Your task to perform on an android device: move a message to another label in the gmail app Image 0: 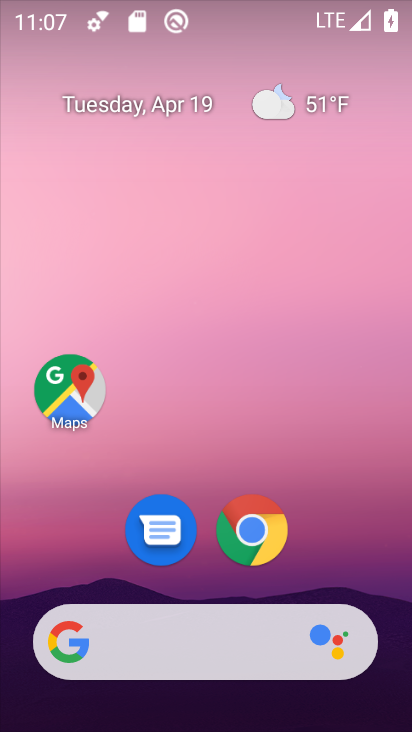
Step 0: drag from (167, 615) to (339, 0)
Your task to perform on an android device: move a message to another label in the gmail app Image 1: 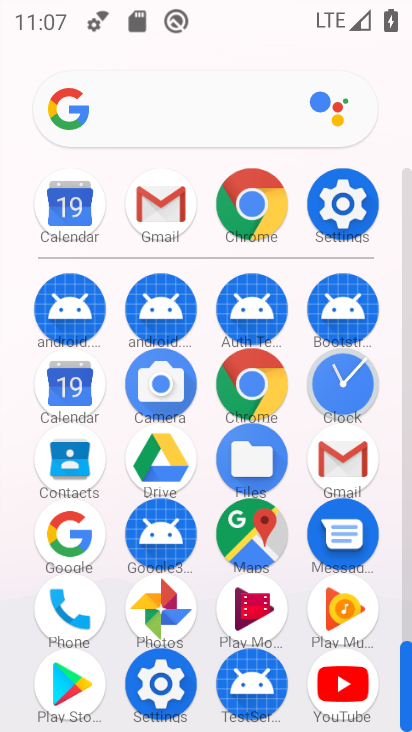
Step 1: click (160, 214)
Your task to perform on an android device: move a message to another label in the gmail app Image 2: 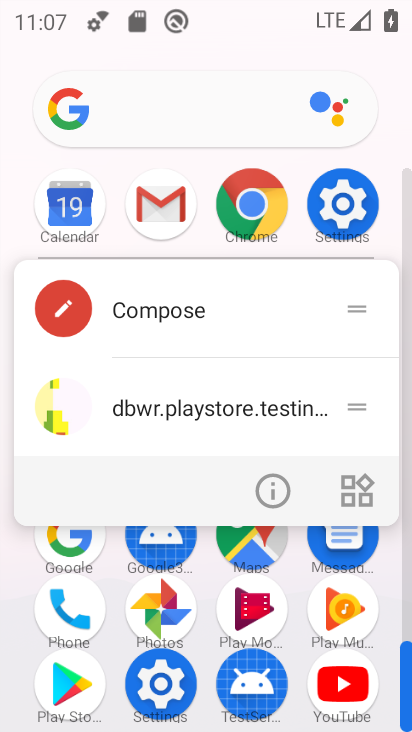
Step 2: click (164, 209)
Your task to perform on an android device: move a message to another label in the gmail app Image 3: 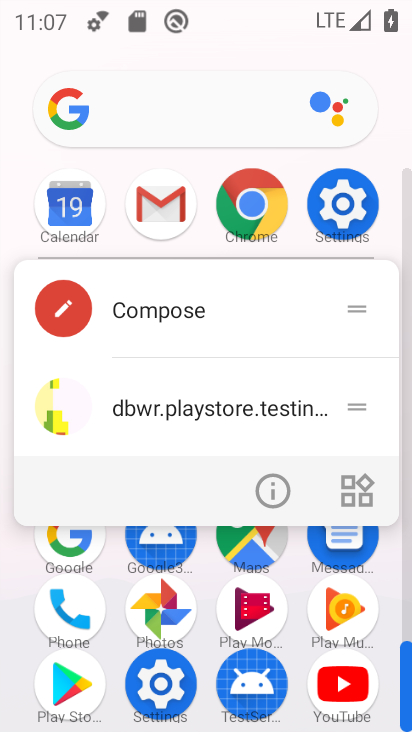
Step 3: click (165, 216)
Your task to perform on an android device: move a message to another label in the gmail app Image 4: 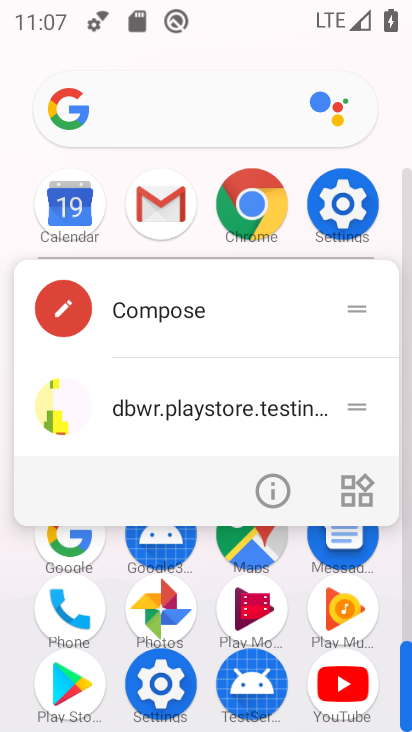
Step 4: click (151, 204)
Your task to perform on an android device: move a message to another label in the gmail app Image 5: 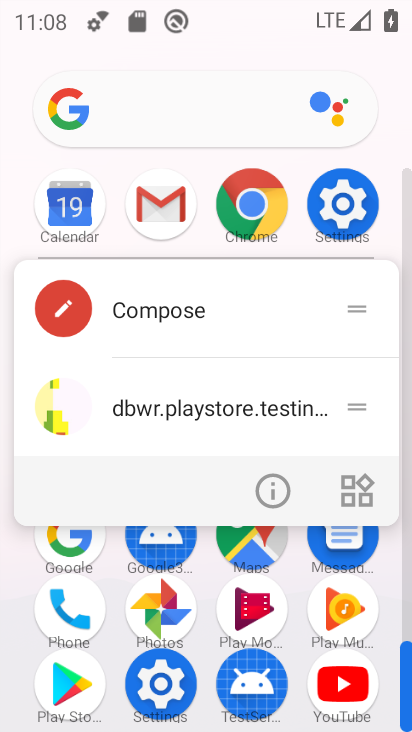
Step 5: click (162, 204)
Your task to perform on an android device: move a message to another label in the gmail app Image 6: 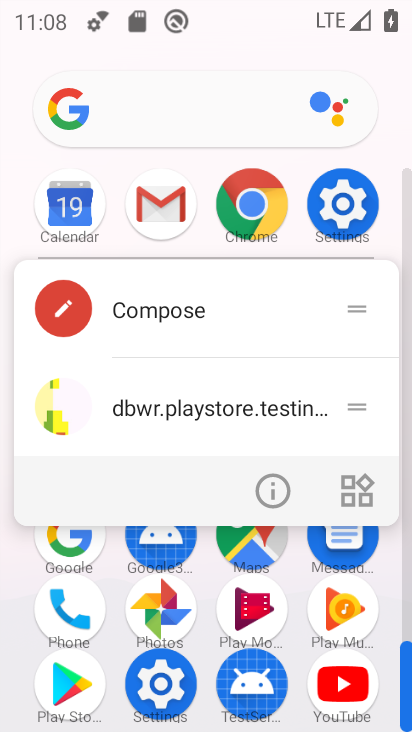
Step 6: click (161, 208)
Your task to perform on an android device: move a message to another label in the gmail app Image 7: 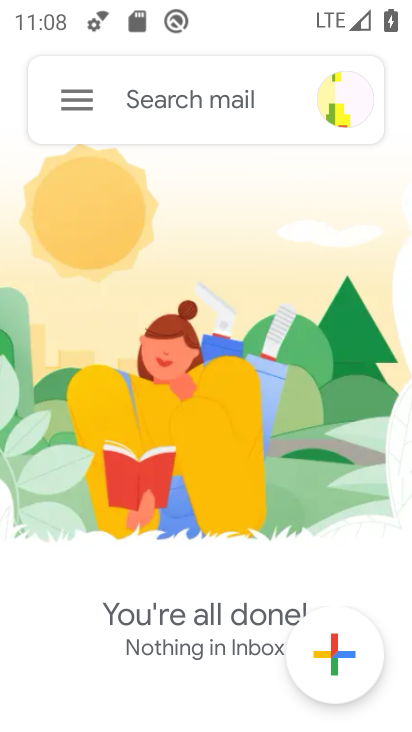
Step 7: task complete